Your task to perform on an android device: Open network settings Image 0: 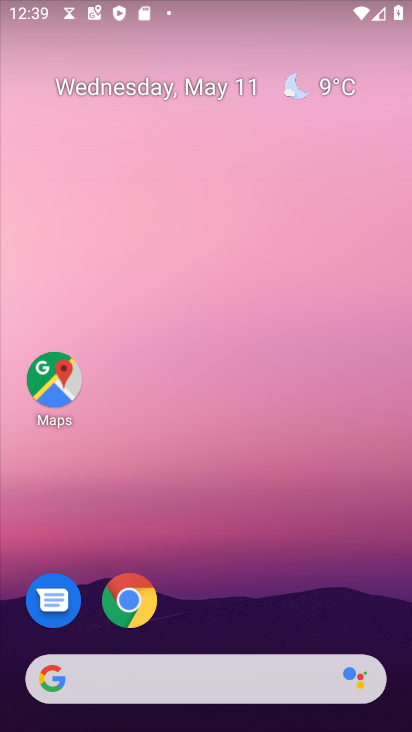
Step 0: drag from (305, 593) to (261, 118)
Your task to perform on an android device: Open network settings Image 1: 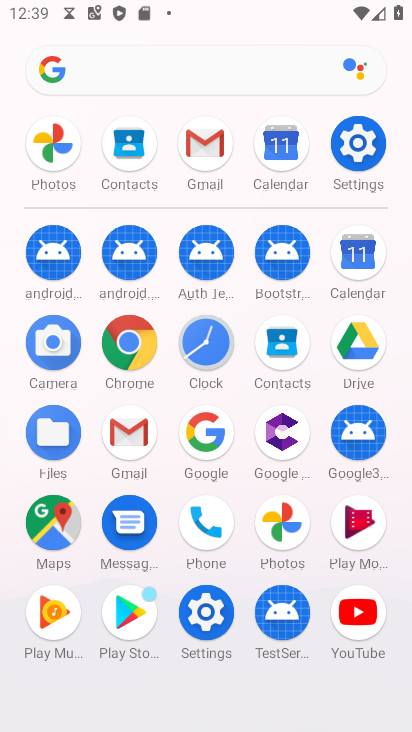
Step 1: click (369, 146)
Your task to perform on an android device: Open network settings Image 2: 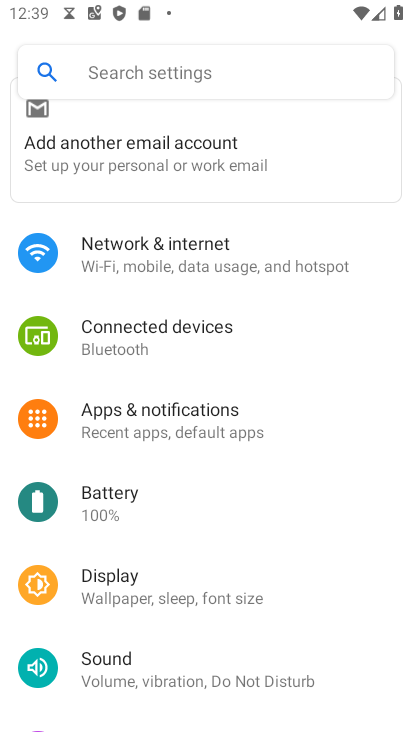
Step 2: click (152, 251)
Your task to perform on an android device: Open network settings Image 3: 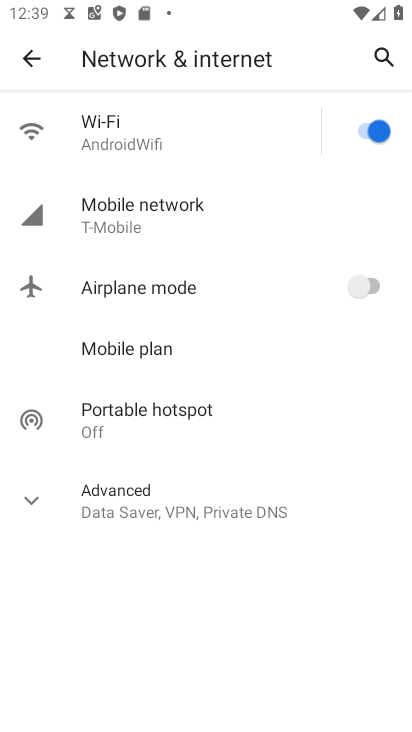
Step 3: task complete